Your task to perform on an android device: turn on bluetooth scan Image 0: 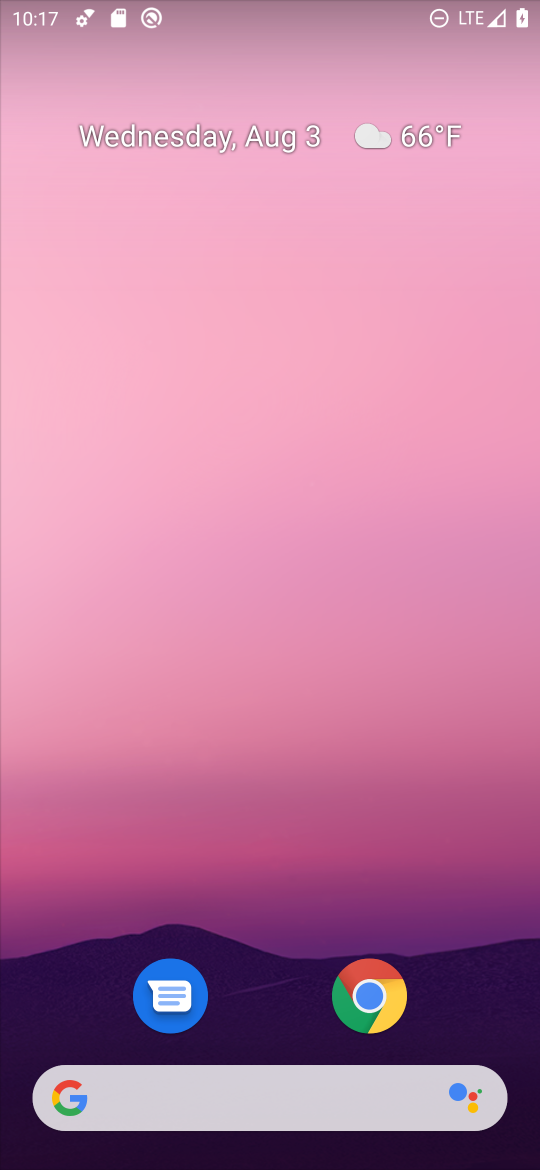
Step 0: drag from (290, 949) to (347, 4)
Your task to perform on an android device: turn on bluetooth scan Image 1: 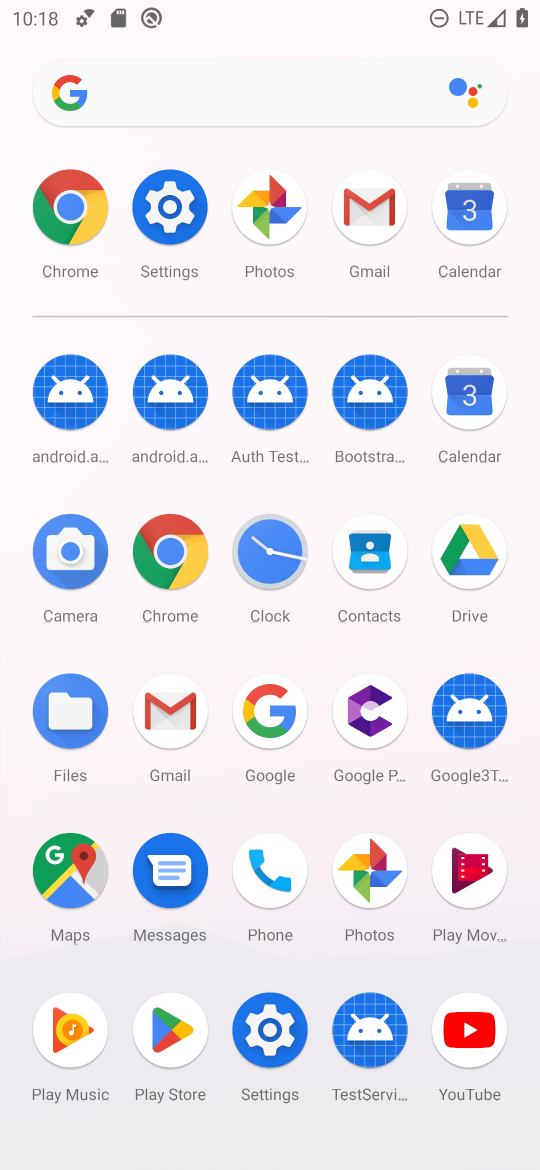
Step 1: click (180, 209)
Your task to perform on an android device: turn on bluetooth scan Image 2: 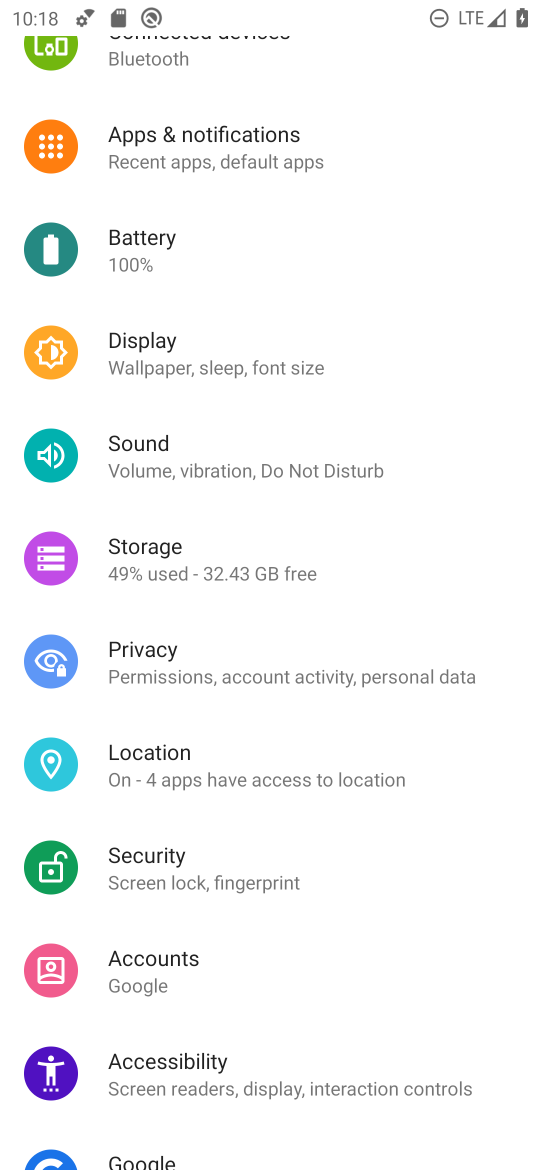
Step 2: click (226, 754)
Your task to perform on an android device: turn on bluetooth scan Image 3: 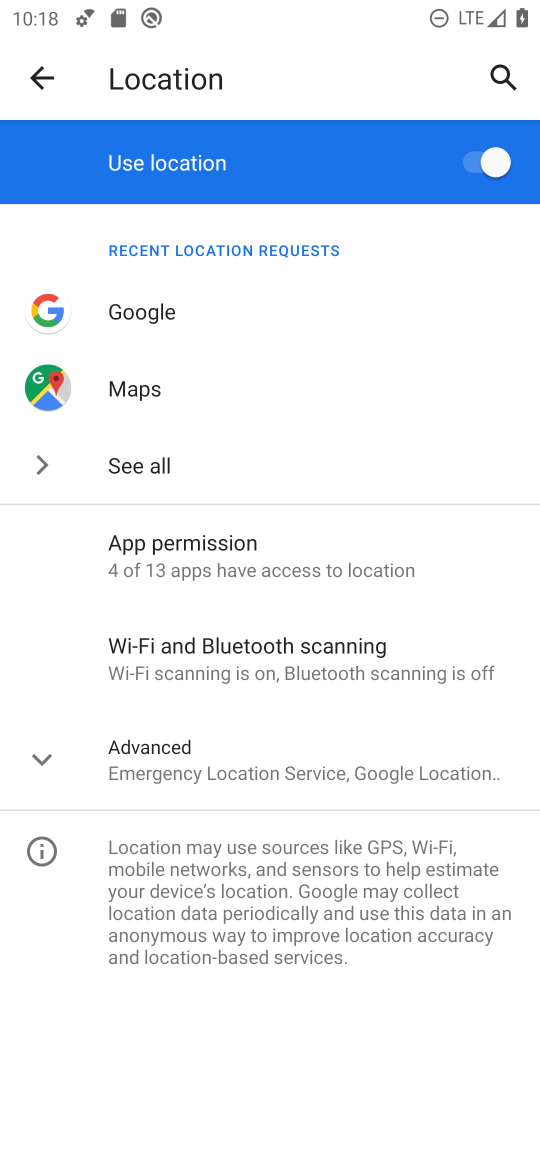
Step 3: click (291, 661)
Your task to perform on an android device: turn on bluetooth scan Image 4: 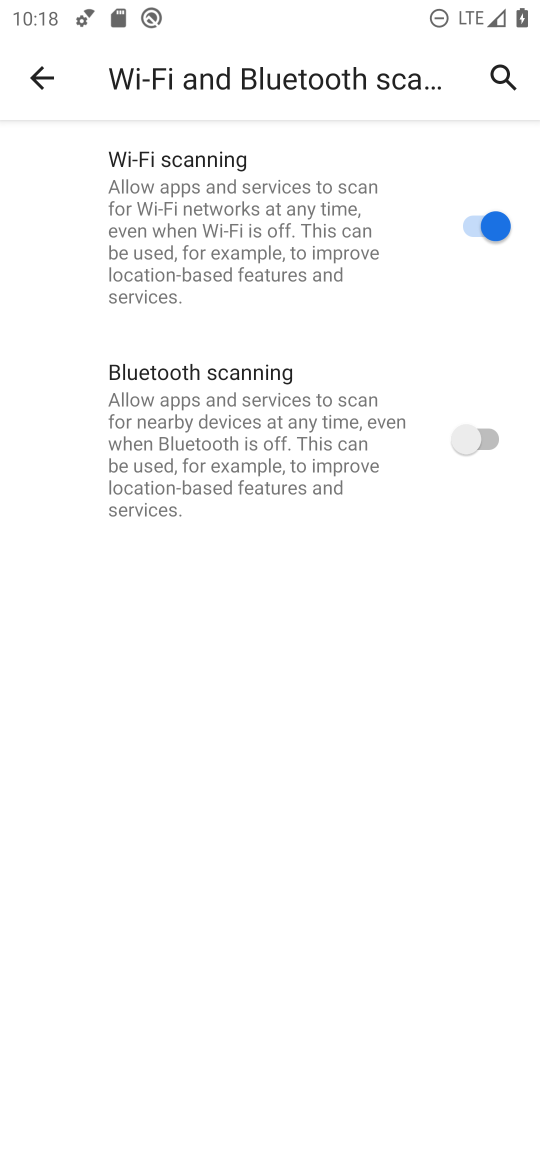
Step 4: click (491, 430)
Your task to perform on an android device: turn on bluetooth scan Image 5: 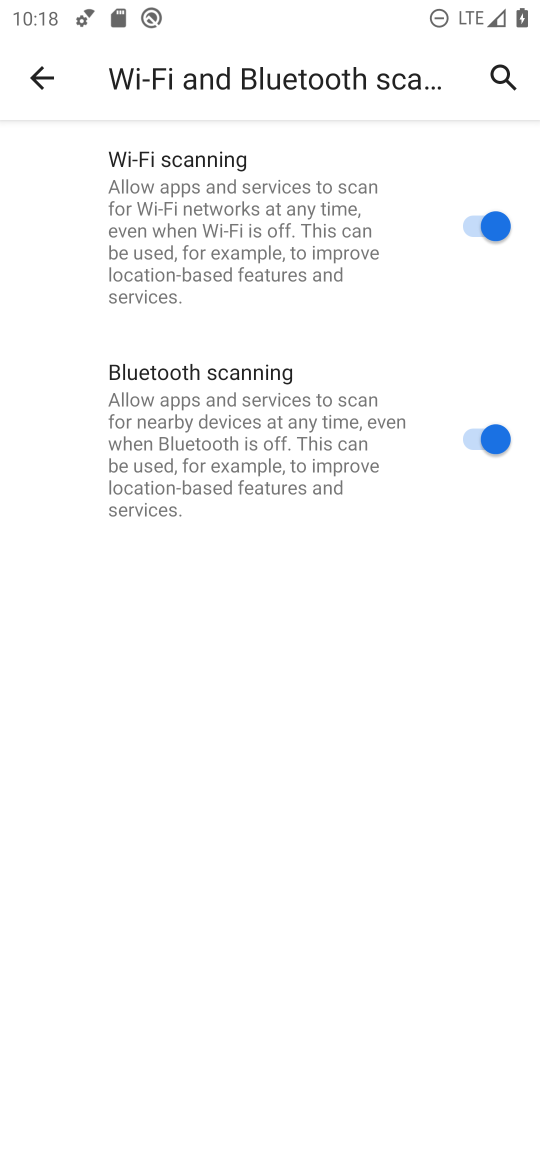
Step 5: task complete